Your task to perform on an android device: Open sound settings Image 0: 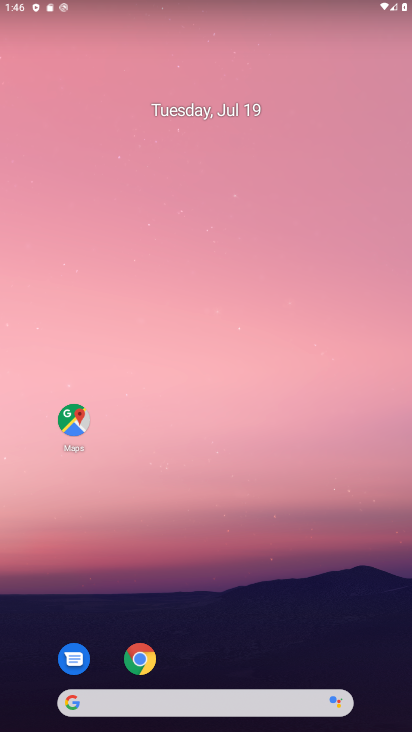
Step 0: drag from (204, 668) to (250, 109)
Your task to perform on an android device: Open sound settings Image 1: 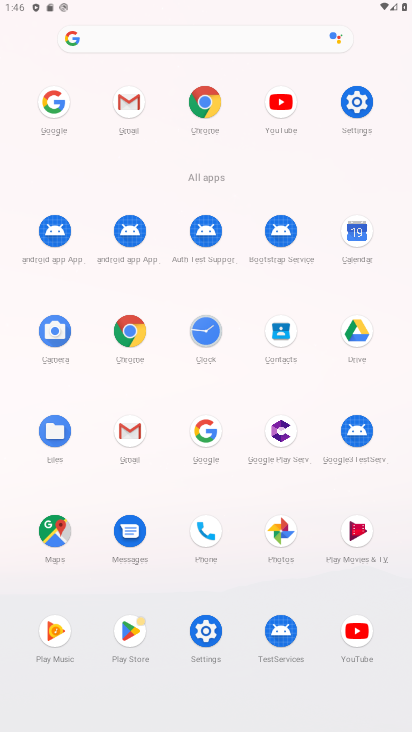
Step 1: click (355, 102)
Your task to perform on an android device: Open sound settings Image 2: 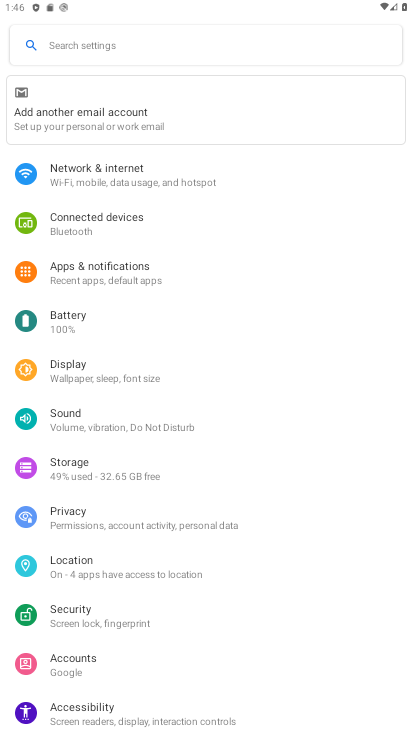
Step 2: click (77, 424)
Your task to perform on an android device: Open sound settings Image 3: 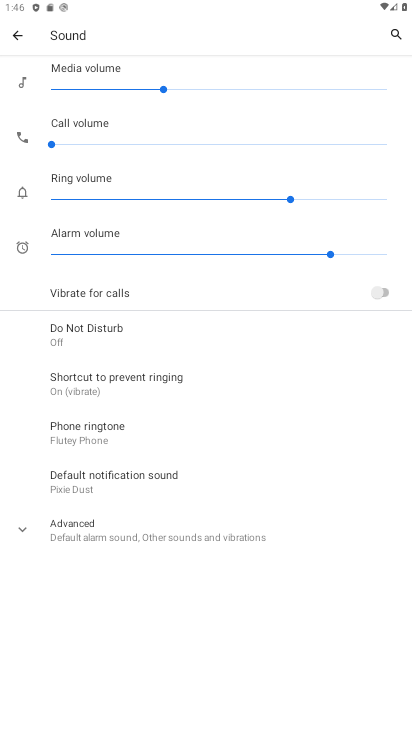
Step 3: task complete